Your task to perform on an android device: clear all cookies in the chrome app Image 0: 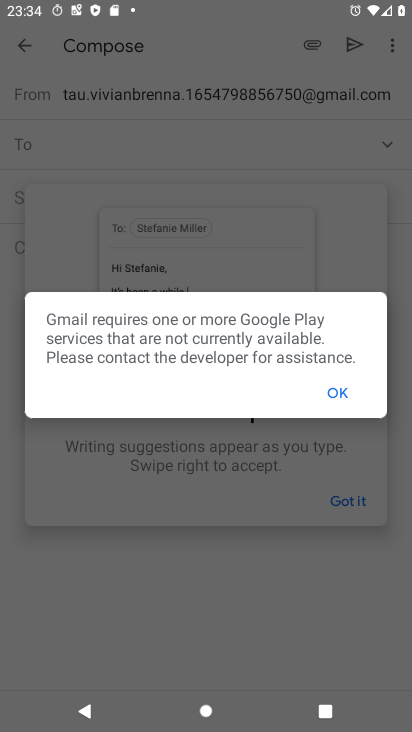
Step 0: press home button
Your task to perform on an android device: clear all cookies in the chrome app Image 1: 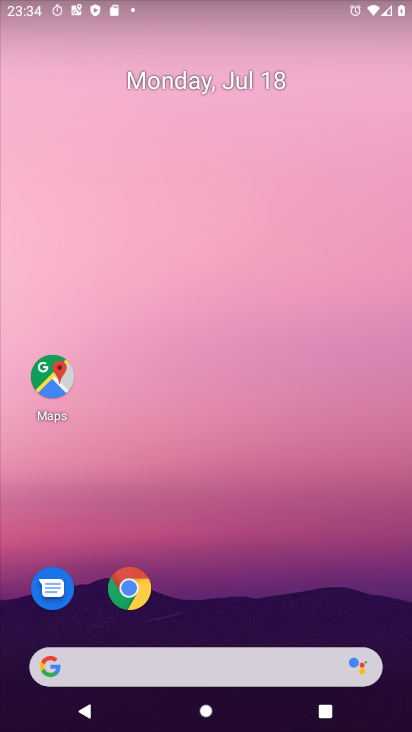
Step 1: click (129, 590)
Your task to perform on an android device: clear all cookies in the chrome app Image 2: 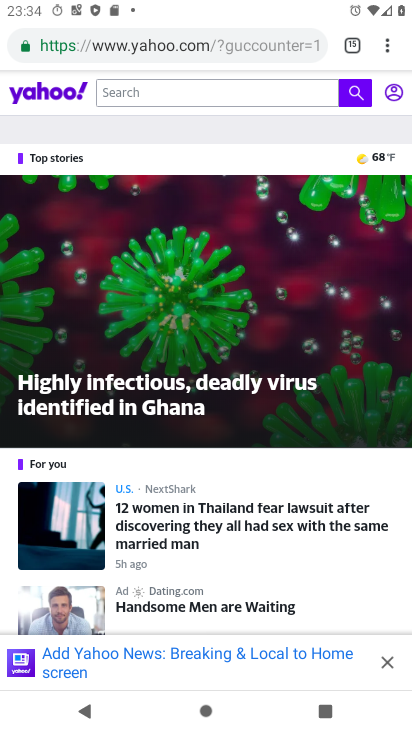
Step 2: drag from (383, 46) to (286, 551)
Your task to perform on an android device: clear all cookies in the chrome app Image 3: 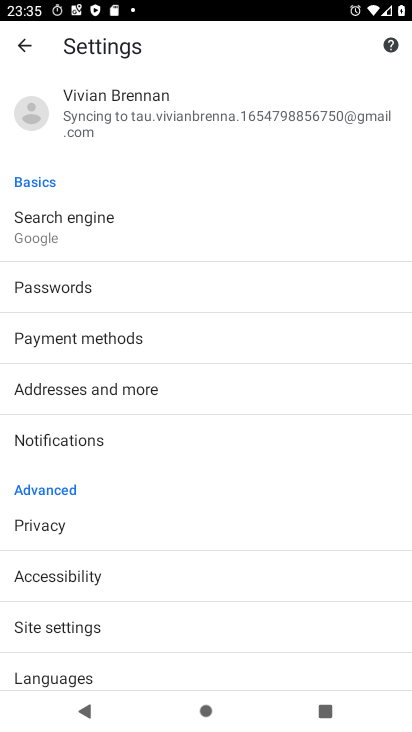
Step 3: drag from (243, 579) to (308, 371)
Your task to perform on an android device: clear all cookies in the chrome app Image 4: 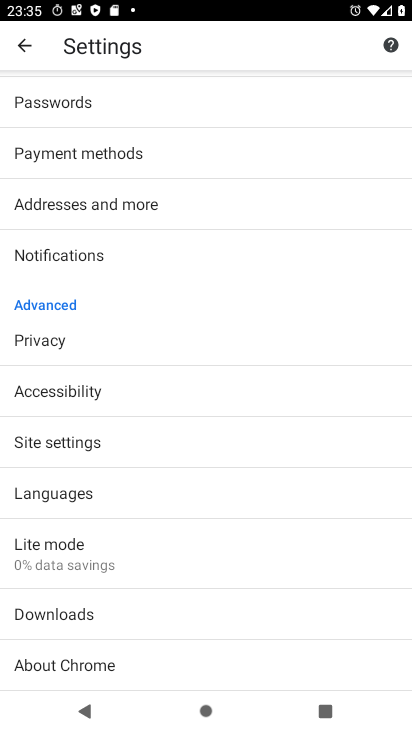
Step 4: click (33, 343)
Your task to perform on an android device: clear all cookies in the chrome app Image 5: 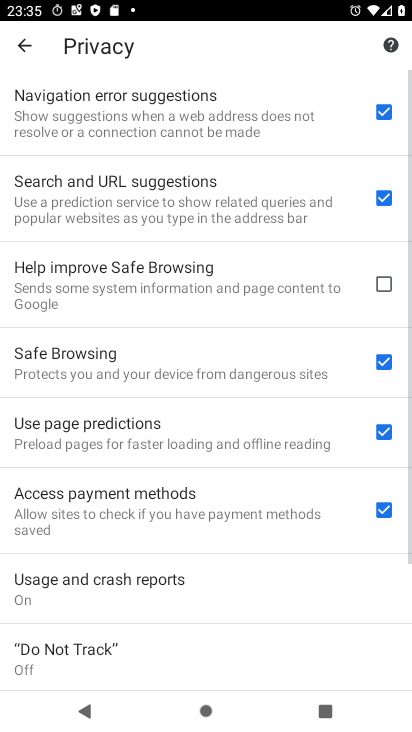
Step 5: drag from (217, 616) to (333, 180)
Your task to perform on an android device: clear all cookies in the chrome app Image 6: 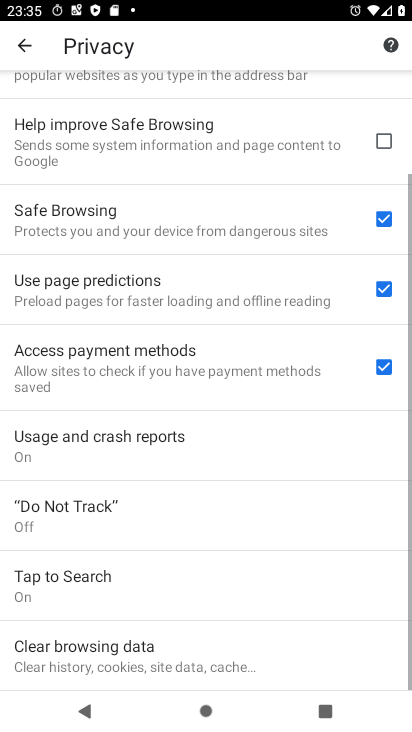
Step 6: drag from (203, 584) to (353, 110)
Your task to perform on an android device: clear all cookies in the chrome app Image 7: 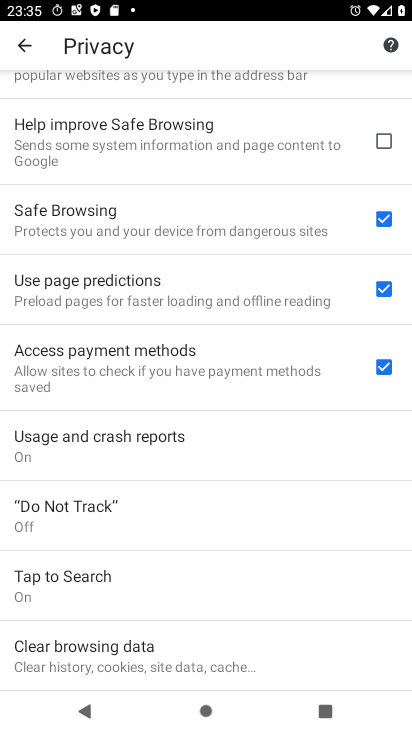
Step 7: click (176, 653)
Your task to perform on an android device: clear all cookies in the chrome app Image 8: 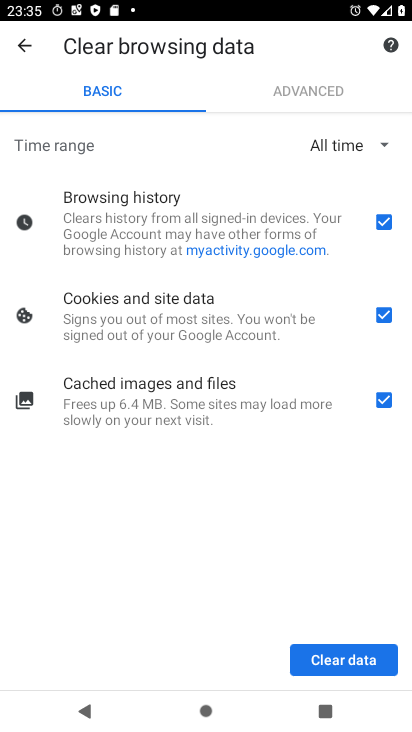
Step 8: click (384, 395)
Your task to perform on an android device: clear all cookies in the chrome app Image 9: 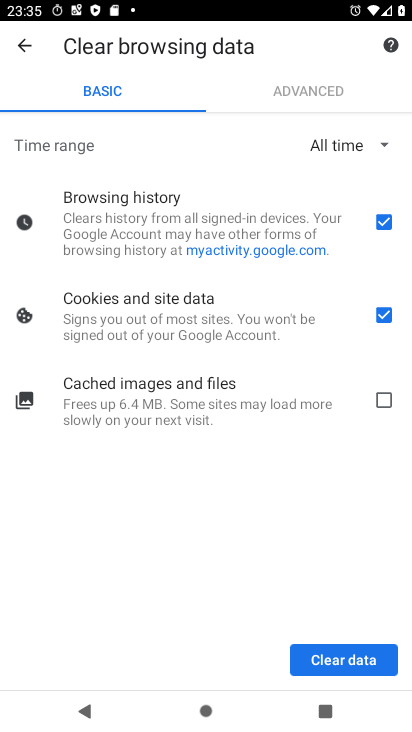
Step 9: click (385, 228)
Your task to perform on an android device: clear all cookies in the chrome app Image 10: 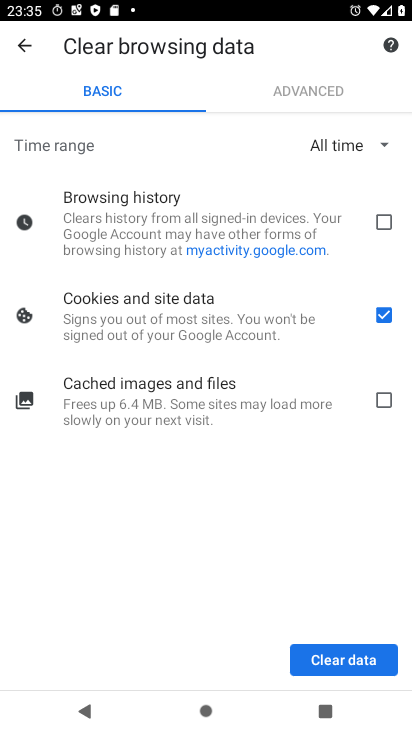
Step 10: click (352, 661)
Your task to perform on an android device: clear all cookies in the chrome app Image 11: 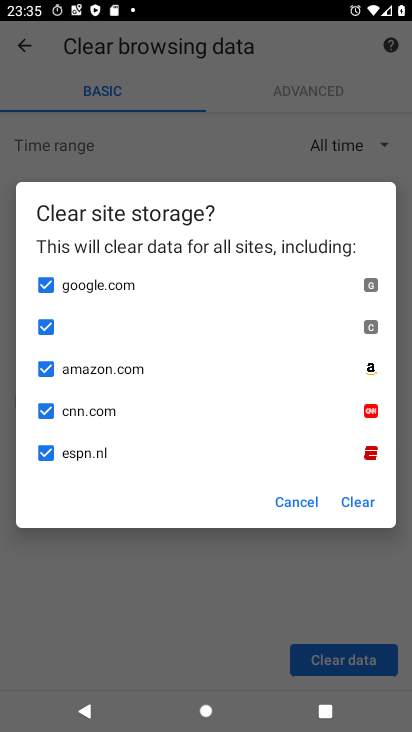
Step 11: click (356, 506)
Your task to perform on an android device: clear all cookies in the chrome app Image 12: 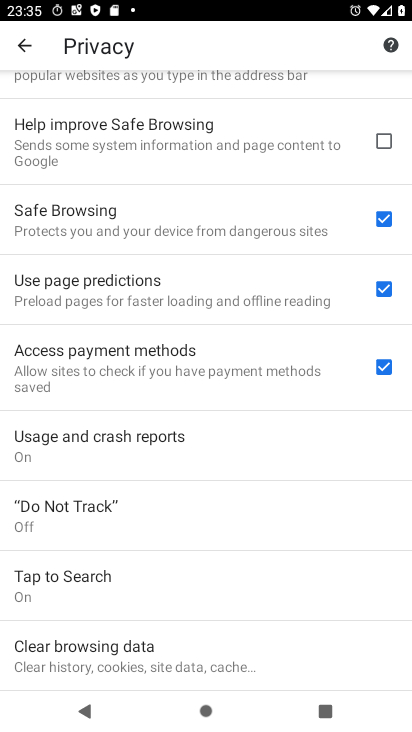
Step 12: task complete